Your task to perform on an android device: Go to sound settings Image 0: 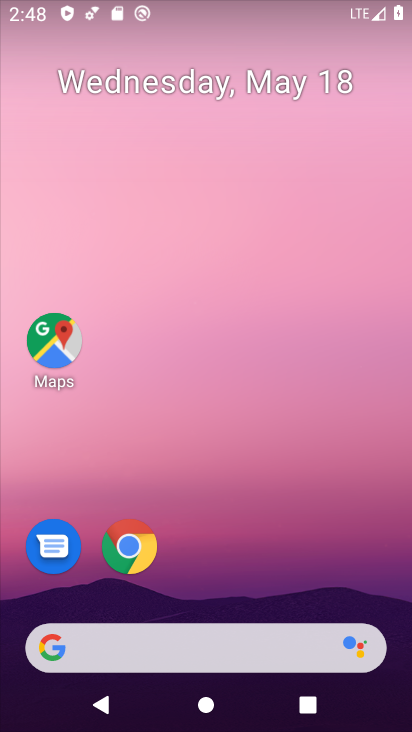
Step 0: drag from (228, 688) to (225, 172)
Your task to perform on an android device: Go to sound settings Image 1: 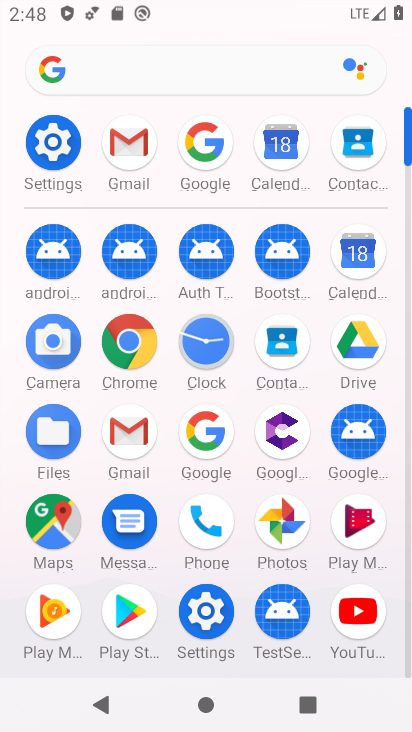
Step 1: click (69, 136)
Your task to perform on an android device: Go to sound settings Image 2: 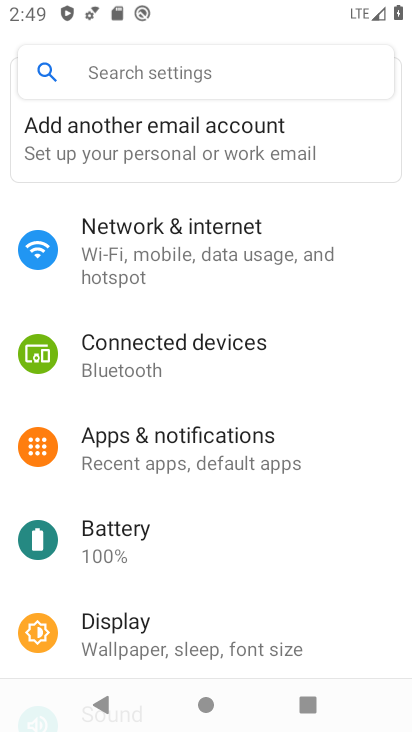
Step 2: drag from (128, 596) to (128, 195)
Your task to perform on an android device: Go to sound settings Image 3: 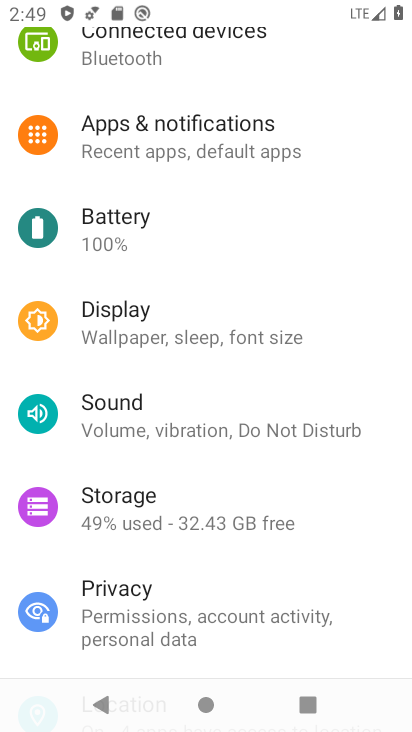
Step 3: click (125, 419)
Your task to perform on an android device: Go to sound settings Image 4: 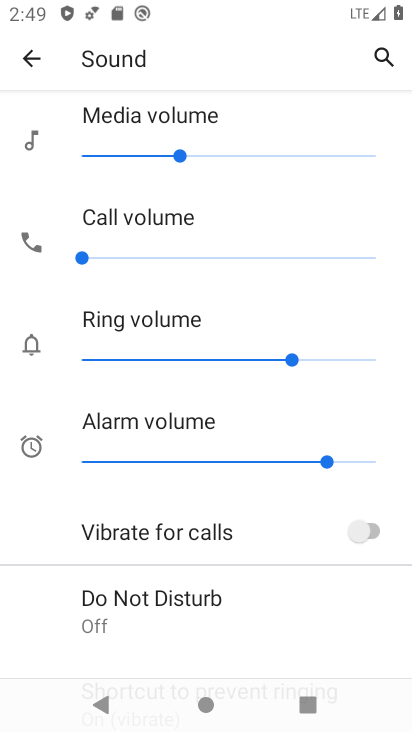
Step 4: task complete